Your task to perform on an android device: Set the phone to "Do not disturb". Image 0: 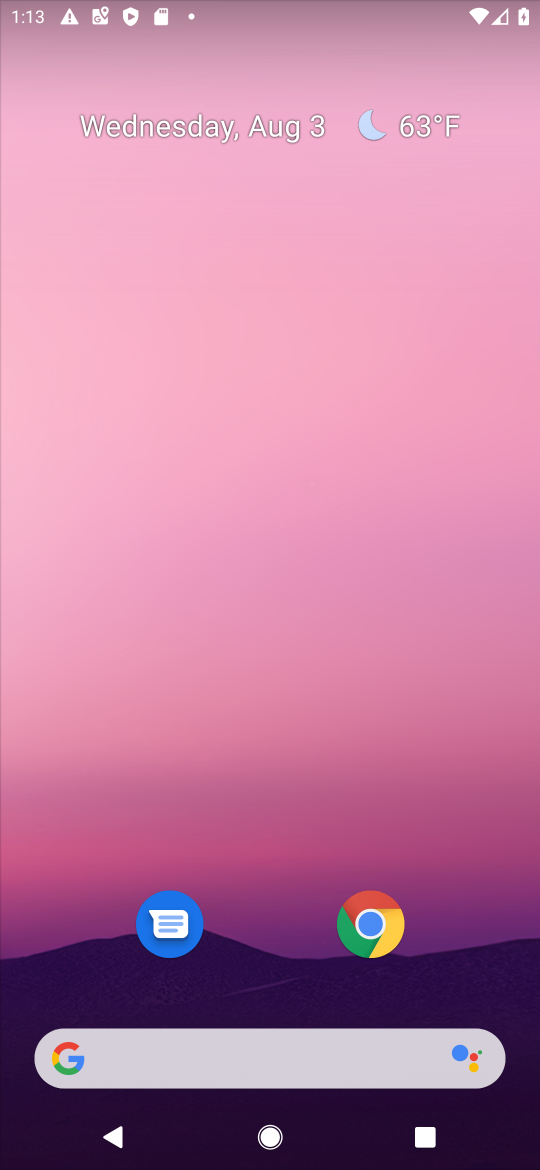
Step 0: drag from (246, 39) to (299, 1007)
Your task to perform on an android device: Set the phone to "Do not disturb". Image 1: 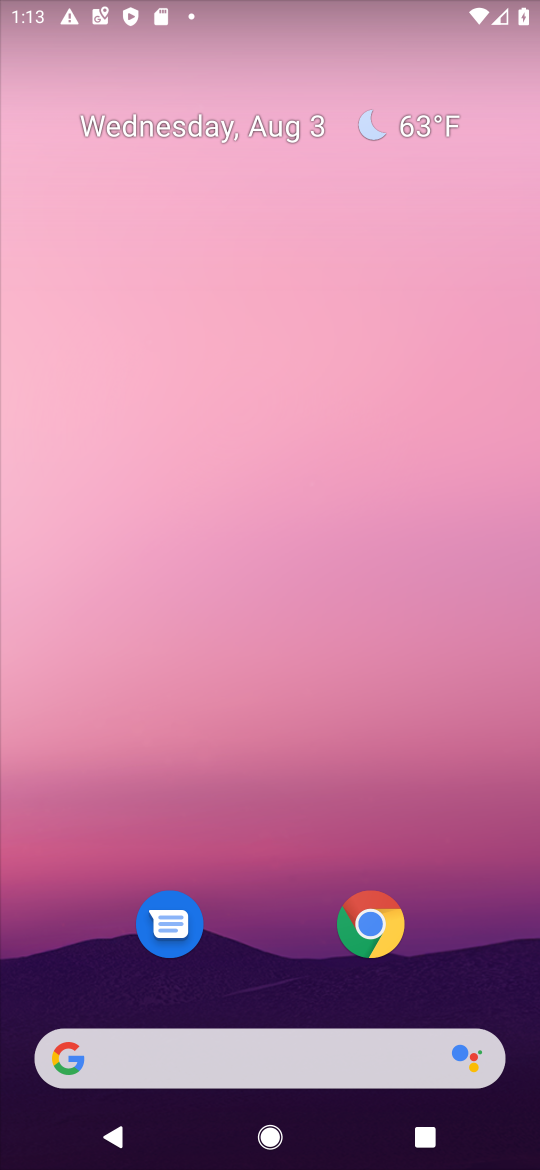
Step 1: drag from (199, 15) to (263, 765)
Your task to perform on an android device: Set the phone to "Do not disturb". Image 2: 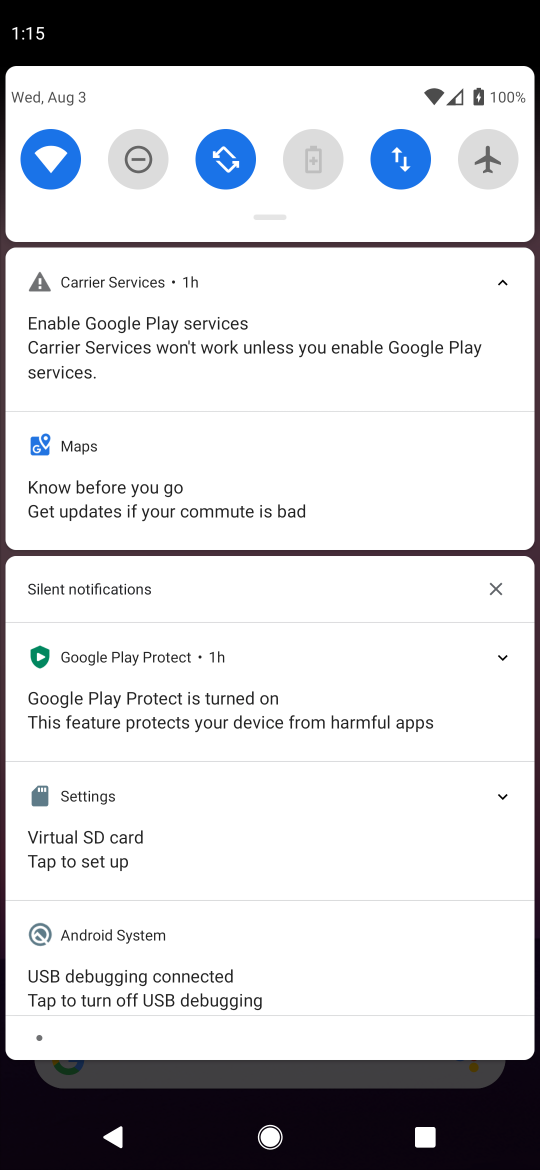
Step 2: click (137, 153)
Your task to perform on an android device: Set the phone to "Do not disturb". Image 3: 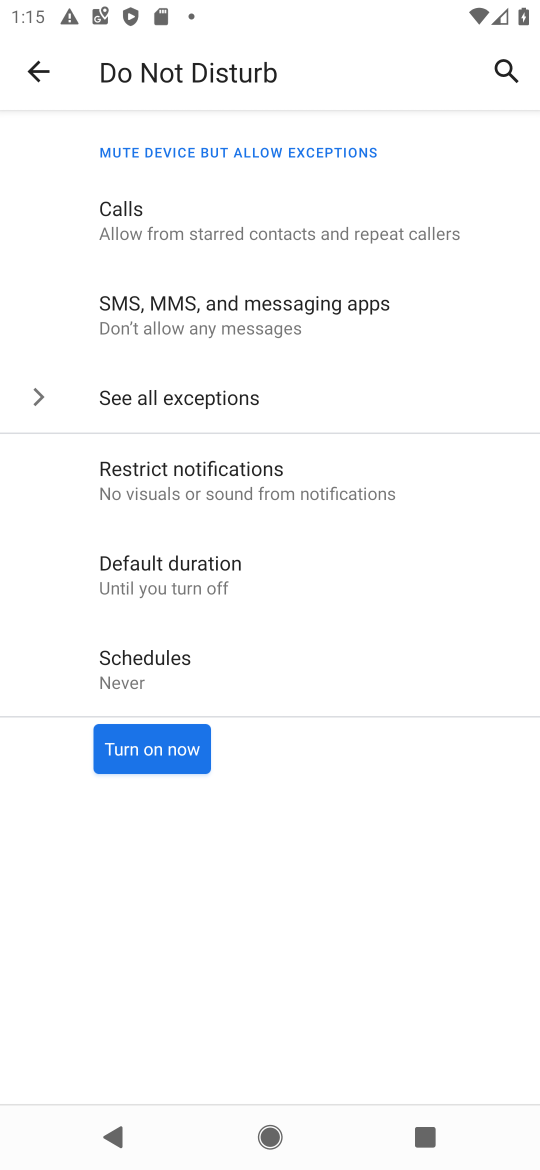
Step 3: task complete